Your task to perform on an android device: View the shopping cart on amazon. Add "logitech g pro" to the cart on amazon Image 0: 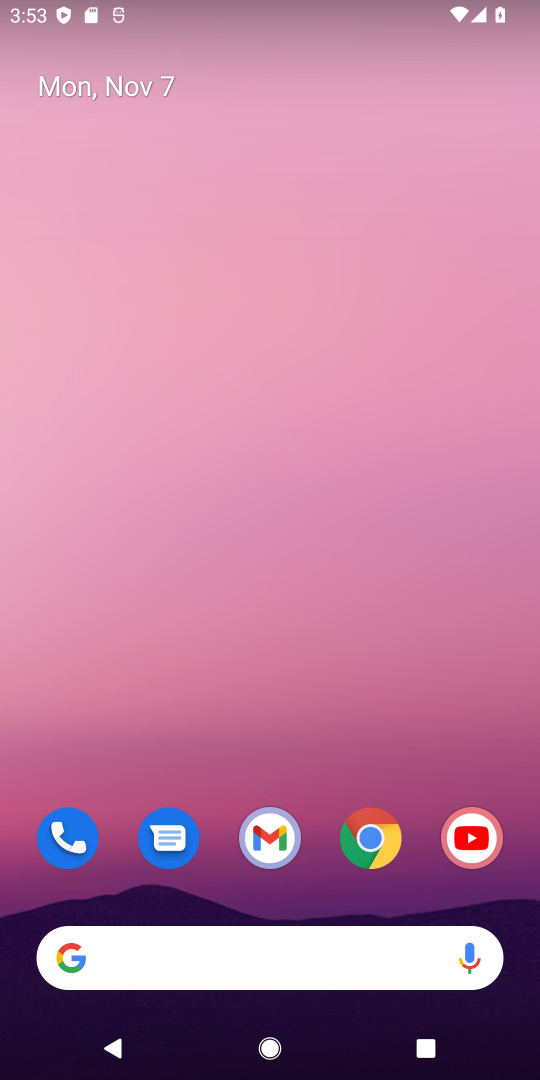
Step 0: click (370, 840)
Your task to perform on an android device: View the shopping cart on amazon. Add "logitech g pro" to the cart on amazon Image 1: 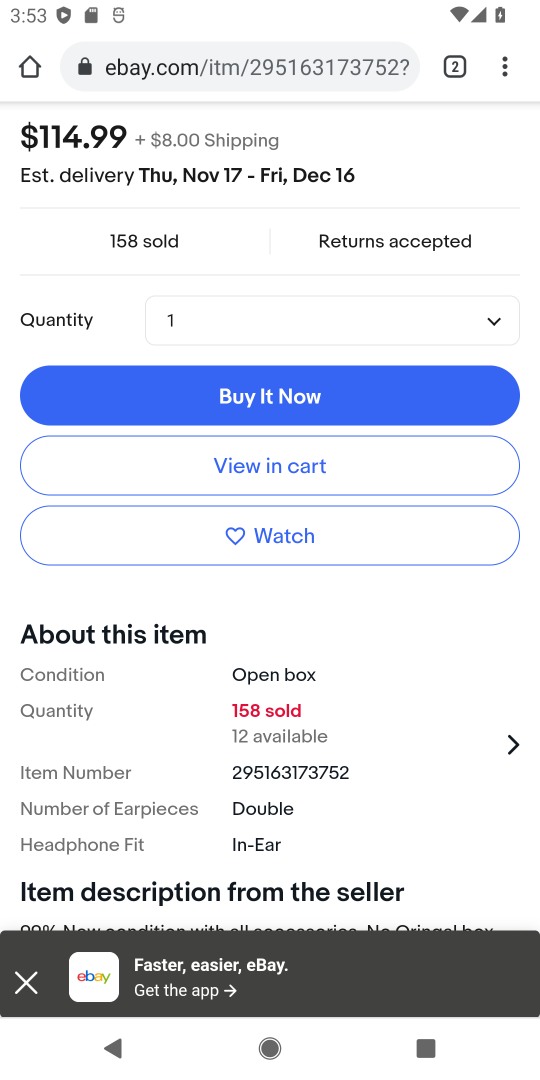
Step 1: click (448, 68)
Your task to perform on an android device: View the shopping cart on amazon. Add "logitech g pro" to the cart on amazon Image 2: 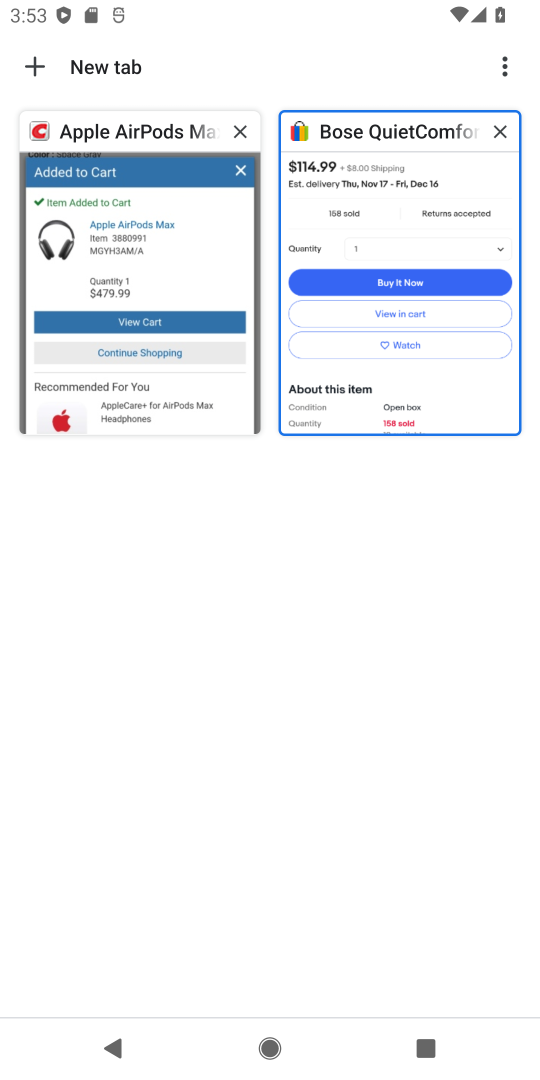
Step 2: click (30, 63)
Your task to perform on an android device: View the shopping cart on amazon. Add "logitech g pro" to the cart on amazon Image 3: 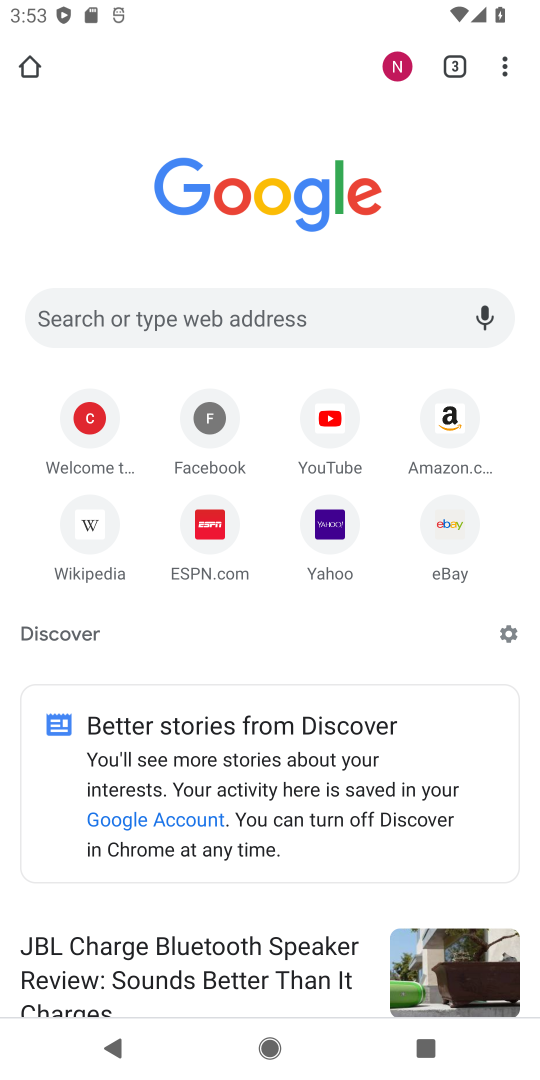
Step 3: click (300, 314)
Your task to perform on an android device: View the shopping cart on amazon. Add "logitech g pro" to the cart on amazon Image 4: 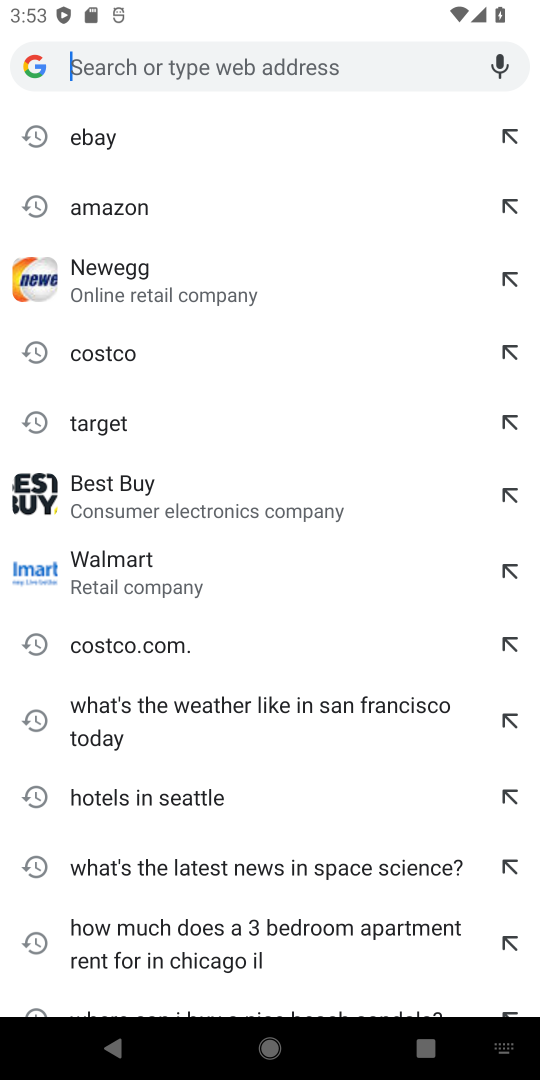
Step 4: type "amazon"
Your task to perform on an android device: View the shopping cart on amazon. Add "logitech g pro" to the cart on amazon Image 5: 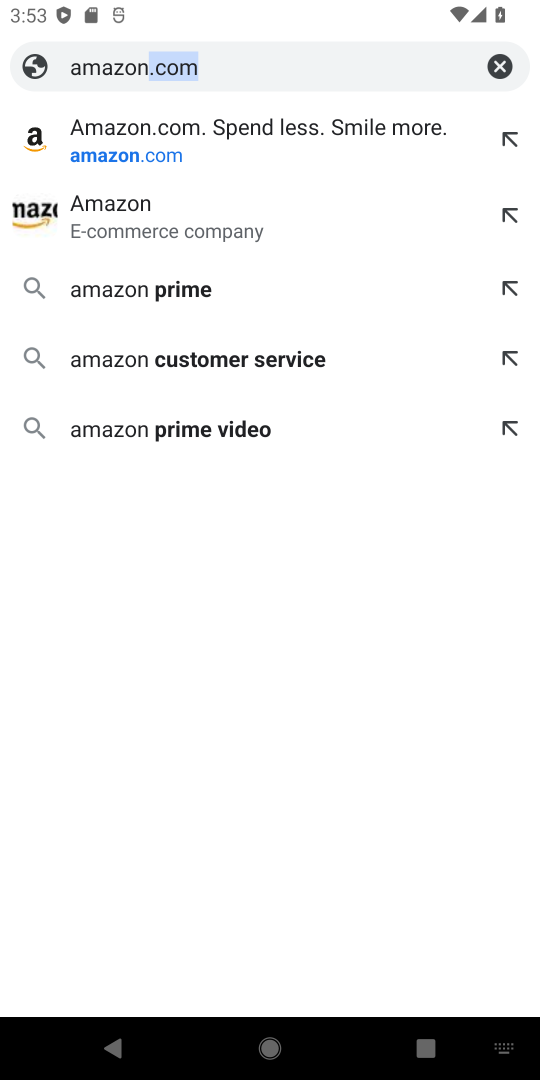
Step 5: click (167, 141)
Your task to perform on an android device: View the shopping cart on amazon. Add "logitech g pro" to the cart on amazon Image 6: 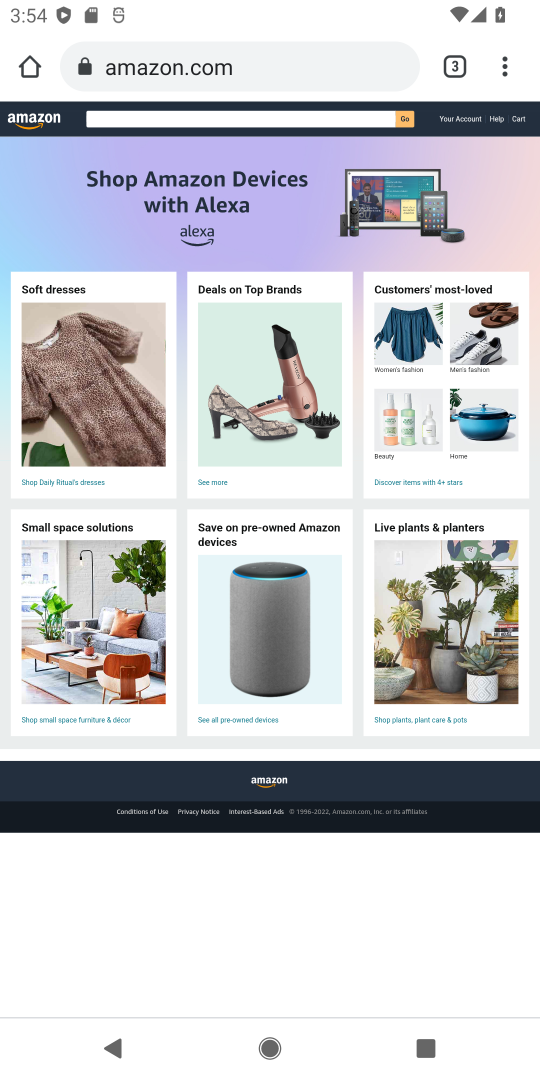
Step 6: click (452, 76)
Your task to perform on an android device: View the shopping cart on amazon. Add "logitech g pro" to the cart on amazon Image 7: 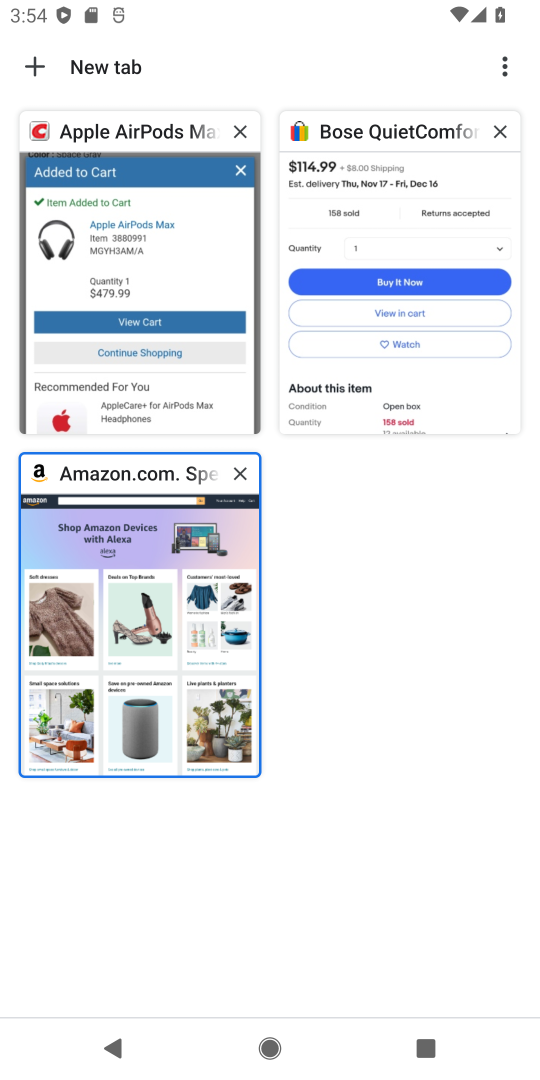
Step 7: click (236, 475)
Your task to perform on an android device: View the shopping cart on amazon. Add "logitech g pro" to the cart on amazon Image 8: 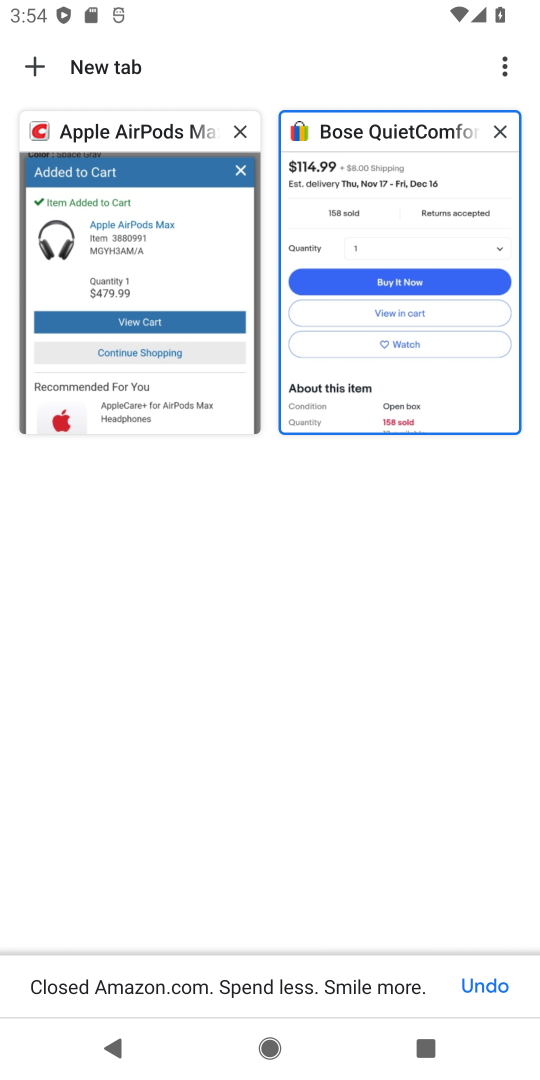
Step 8: click (24, 72)
Your task to perform on an android device: View the shopping cart on amazon. Add "logitech g pro" to the cart on amazon Image 9: 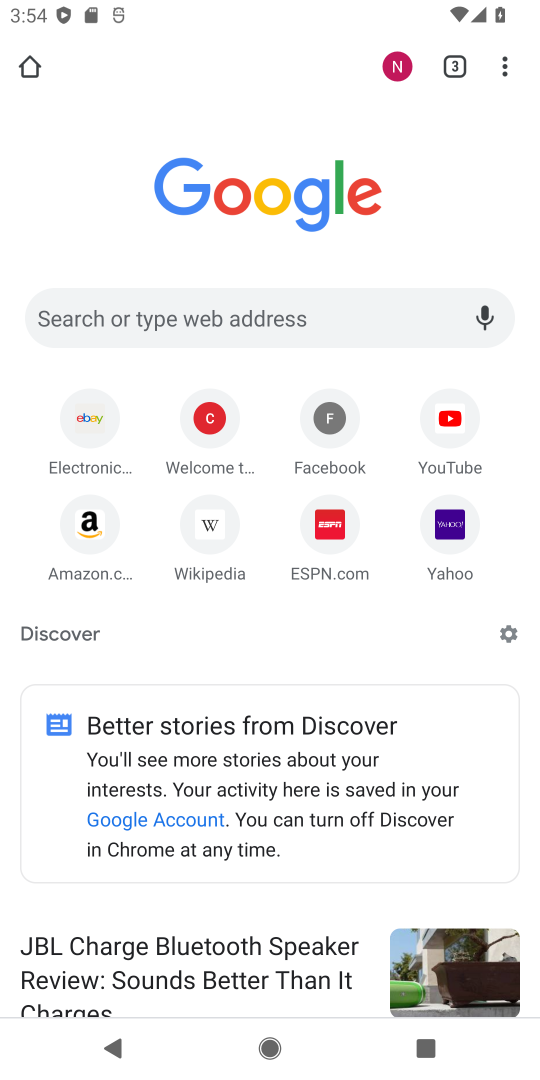
Step 9: click (204, 331)
Your task to perform on an android device: View the shopping cart on amazon. Add "logitech g pro" to the cart on amazon Image 10: 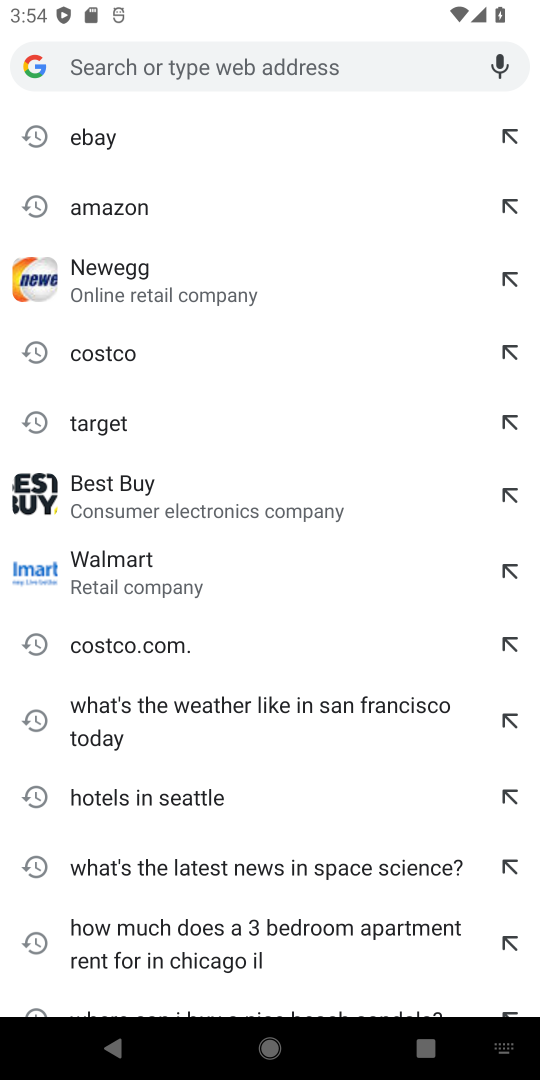
Step 10: type "amazon"
Your task to perform on an android device: View the shopping cart on amazon. Add "logitech g pro" to the cart on amazon Image 11: 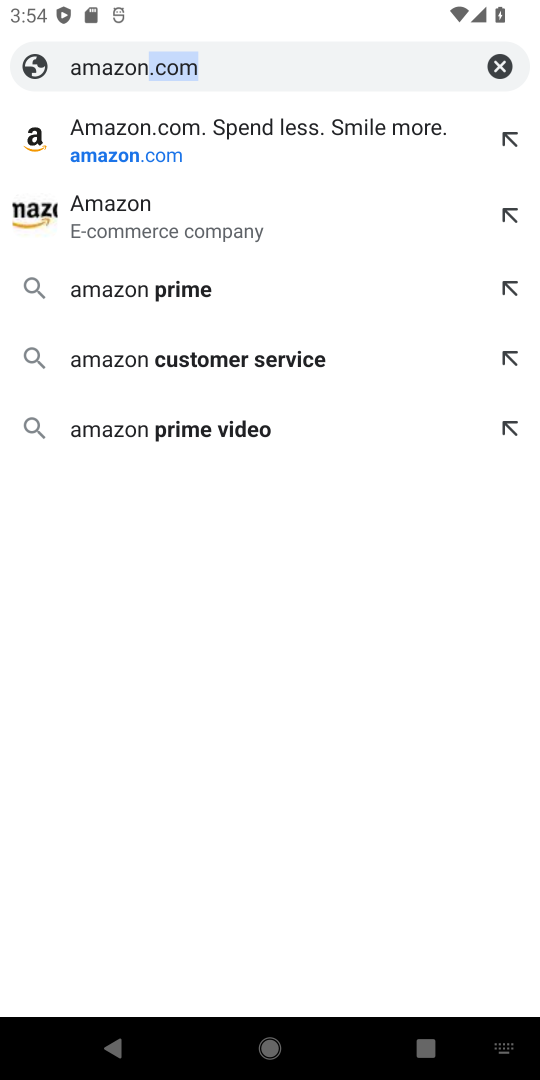
Step 11: click (217, 138)
Your task to perform on an android device: View the shopping cart on amazon. Add "logitech g pro" to the cart on amazon Image 12: 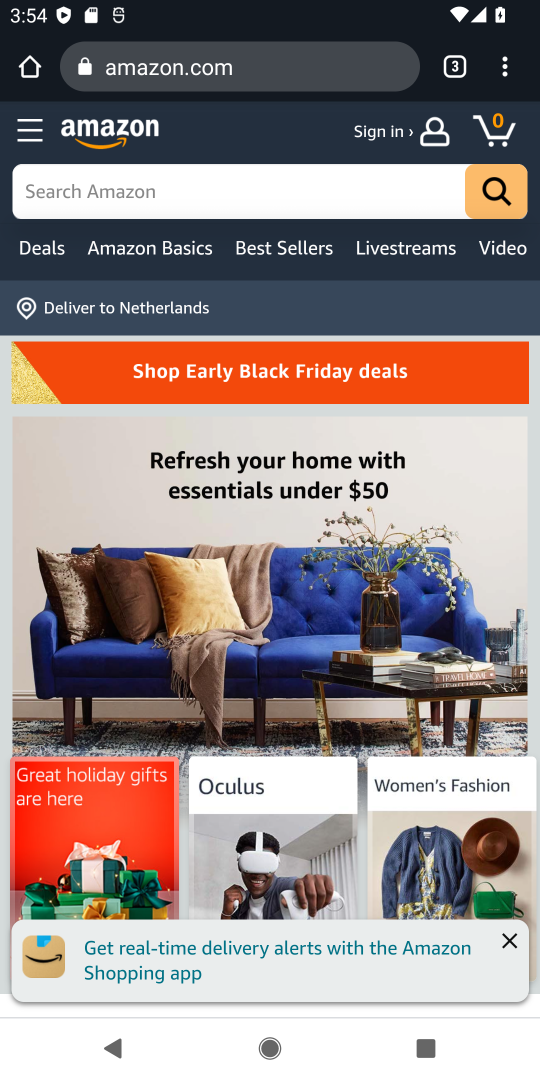
Step 12: click (139, 197)
Your task to perform on an android device: View the shopping cart on amazon. Add "logitech g pro" to the cart on amazon Image 13: 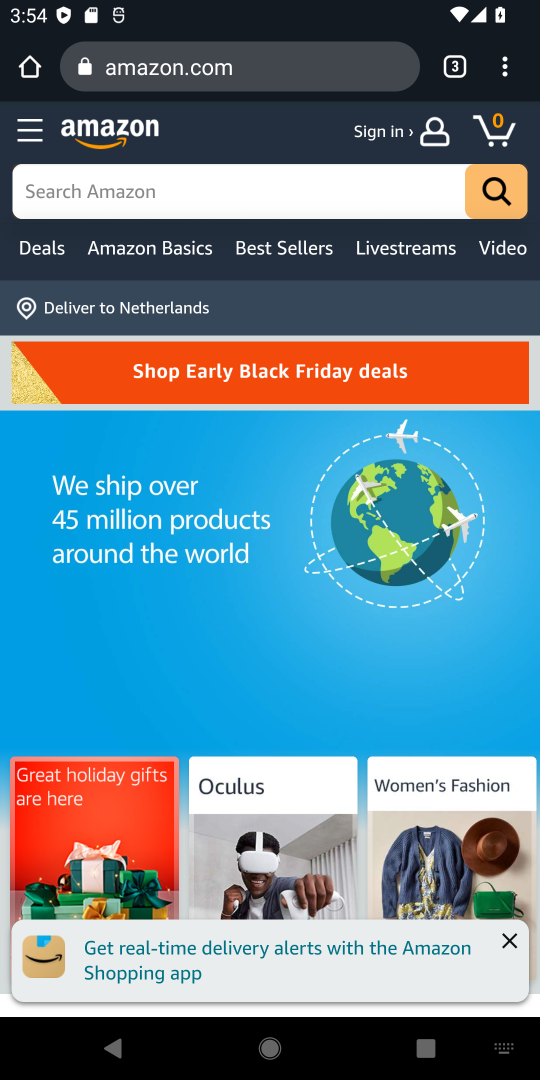
Step 13: type "logitech g pro"
Your task to perform on an android device: View the shopping cart on amazon. Add "logitech g pro" to the cart on amazon Image 14: 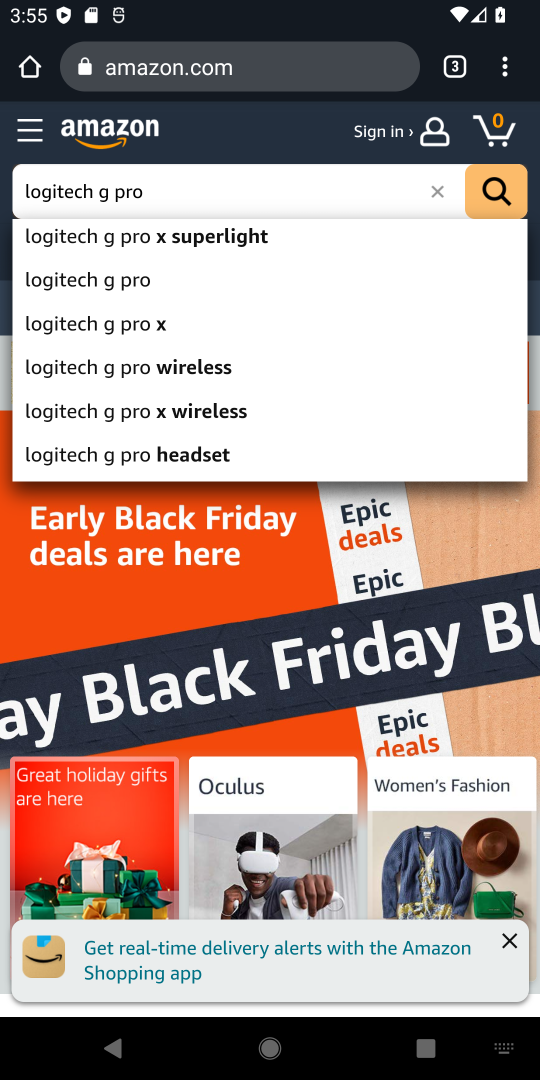
Step 14: click (145, 235)
Your task to perform on an android device: View the shopping cart on amazon. Add "logitech g pro" to the cart on amazon Image 15: 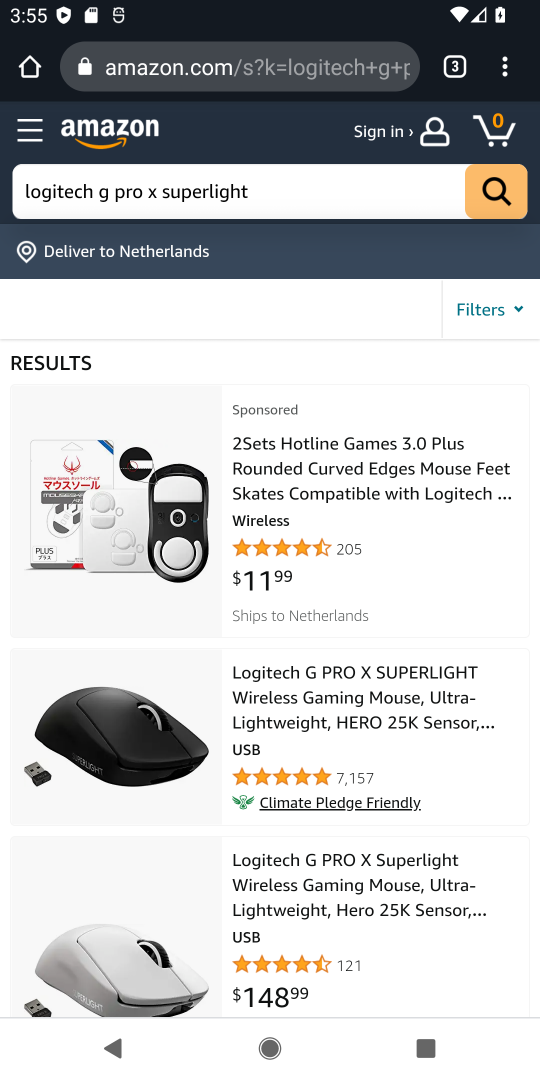
Step 15: click (362, 698)
Your task to perform on an android device: View the shopping cart on amazon. Add "logitech g pro" to the cart on amazon Image 16: 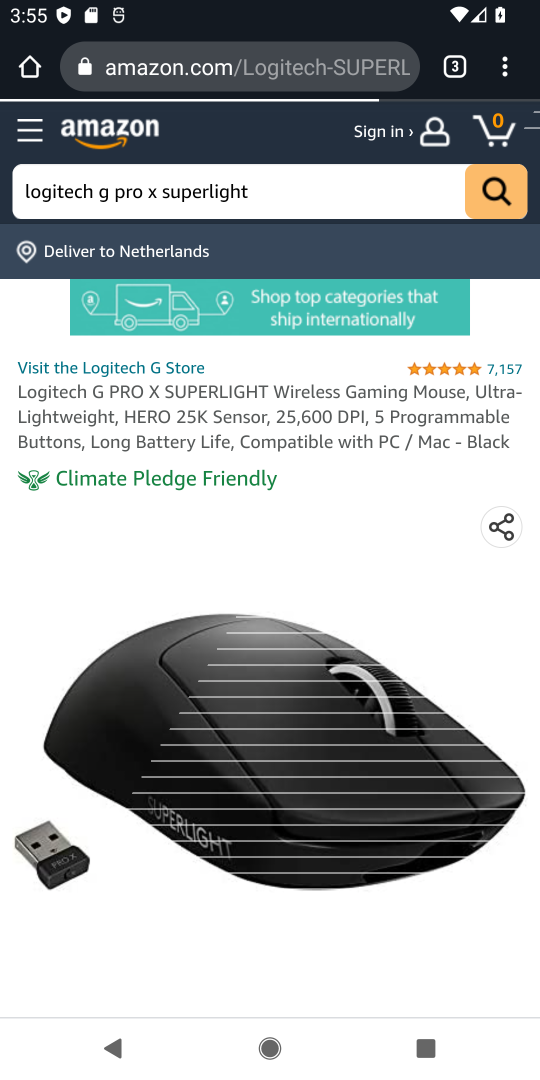
Step 16: drag from (330, 703) to (397, 136)
Your task to perform on an android device: View the shopping cart on amazon. Add "logitech g pro" to the cart on amazon Image 17: 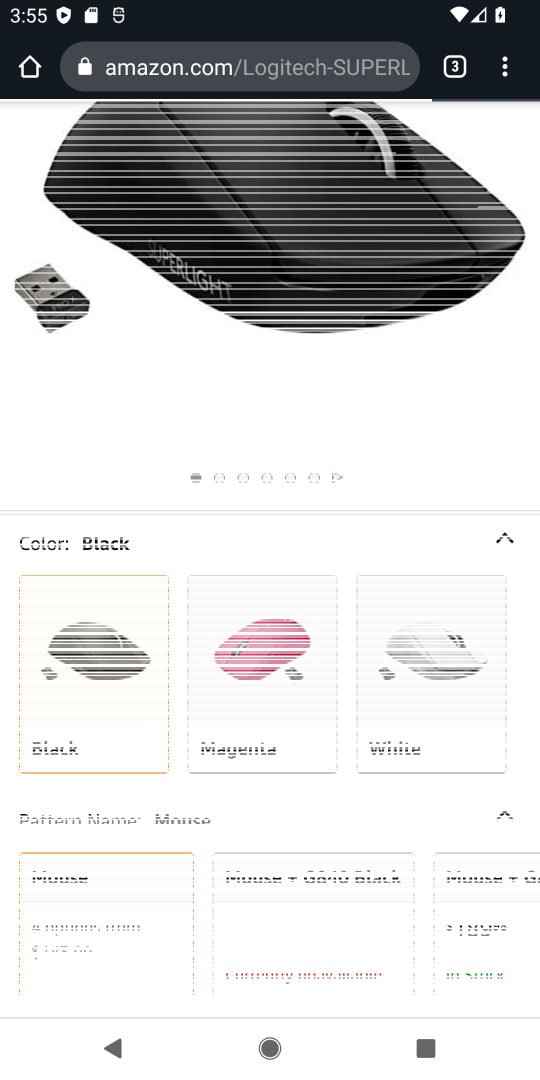
Step 17: drag from (260, 913) to (383, 7)
Your task to perform on an android device: View the shopping cart on amazon. Add "logitech g pro" to the cart on amazon Image 18: 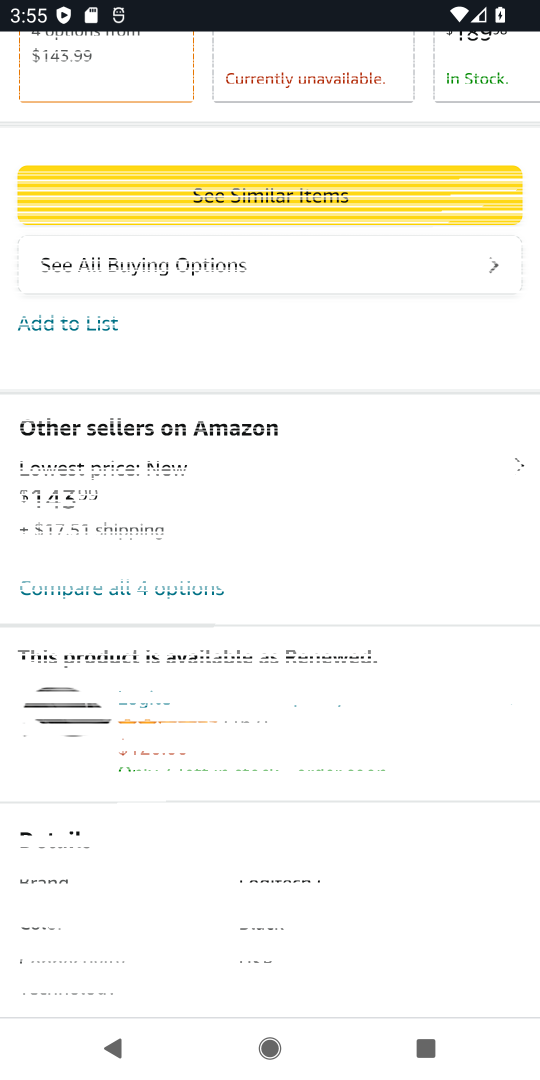
Step 18: click (92, 325)
Your task to perform on an android device: View the shopping cart on amazon. Add "logitech g pro" to the cart on amazon Image 19: 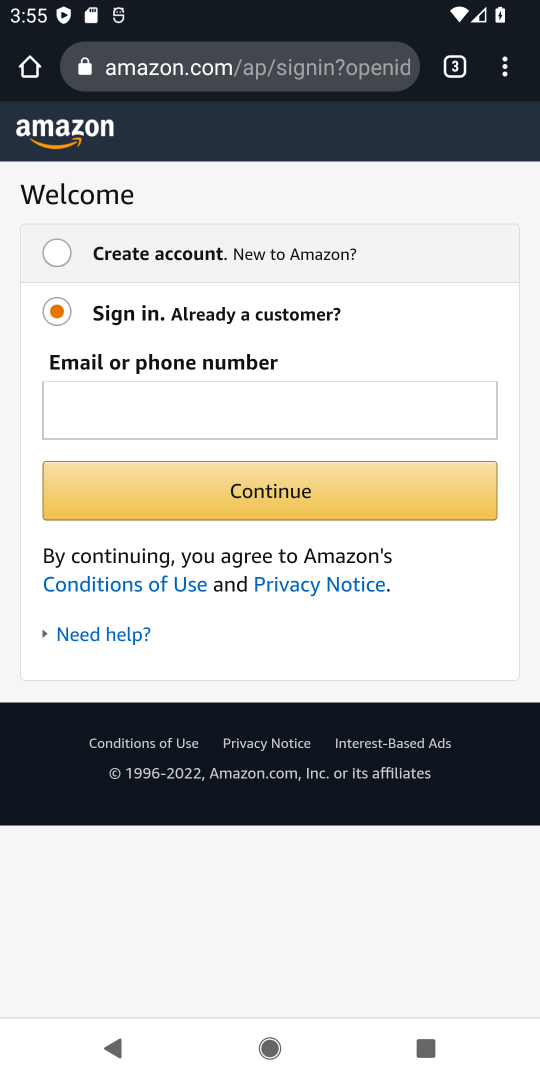
Step 19: task complete